Your task to perform on an android device: Open internet settings Image 0: 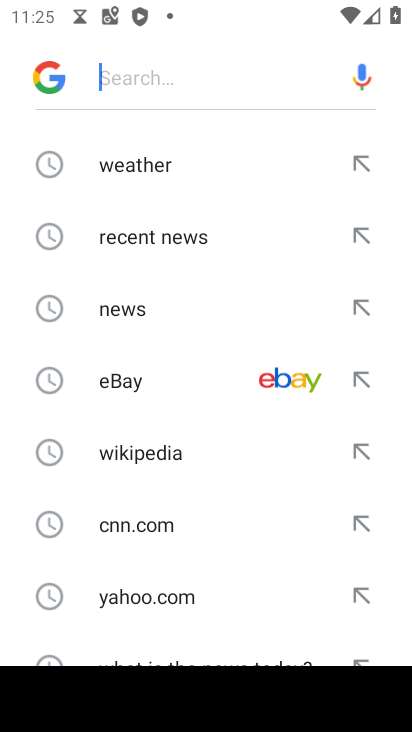
Step 0: press back button
Your task to perform on an android device: Open internet settings Image 1: 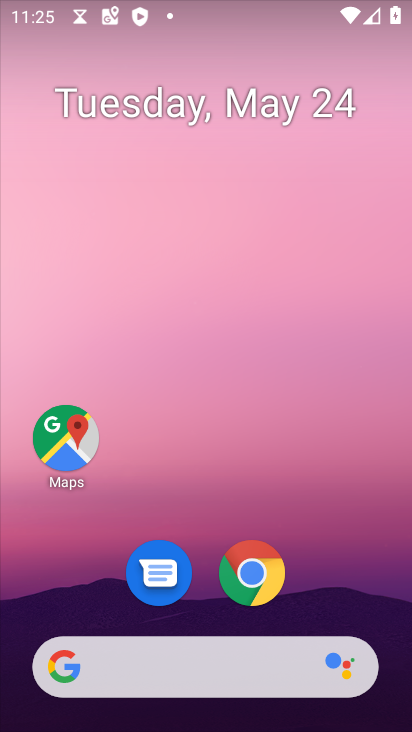
Step 1: drag from (78, 625) to (178, 190)
Your task to perform on an android device: Open internet settings Image 2: 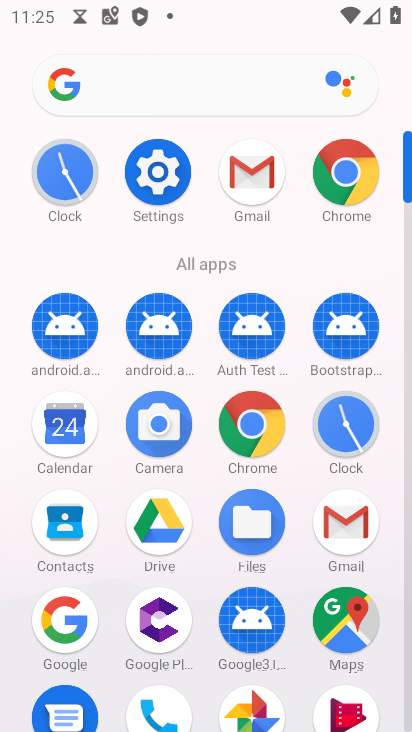
Step 2: drag from (121, 674) to (195, 375)
Your task to perform on an android device: Open internet settings Image 3: 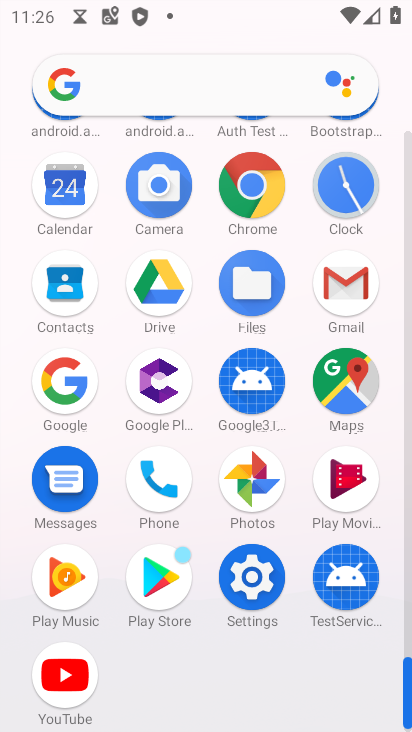
Step 3: click (231, 597)
Your task to perform on an android device: Open internet settings Image 4: 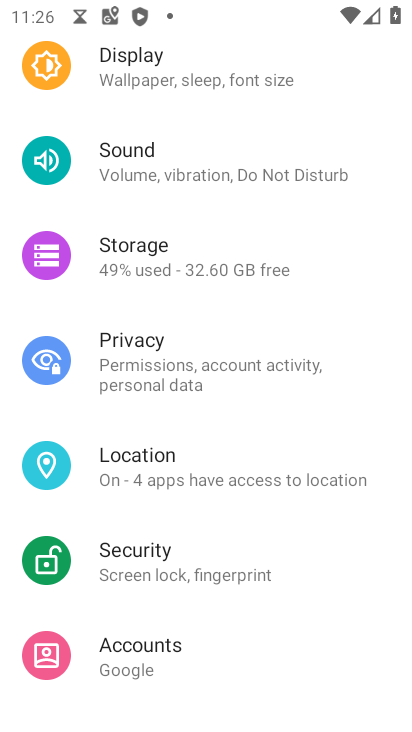
Step 4: drag from (195, 137) to (170, 629)
Your task to perform on an android device: Open internet settings Image 5: 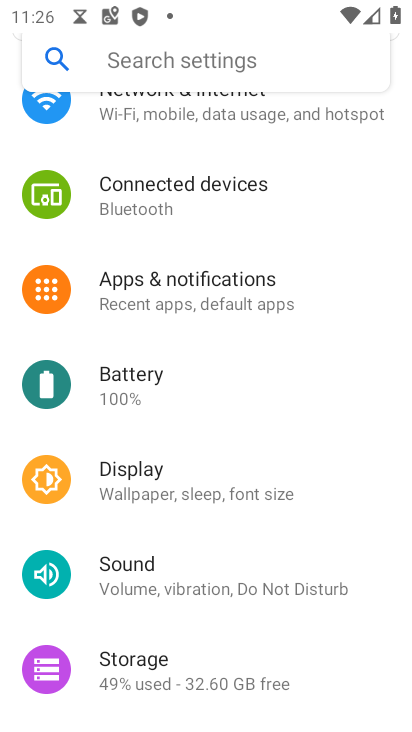
Step 5: click (193, 115)
Your task to perform on an android device: Open internet settings Image 6: 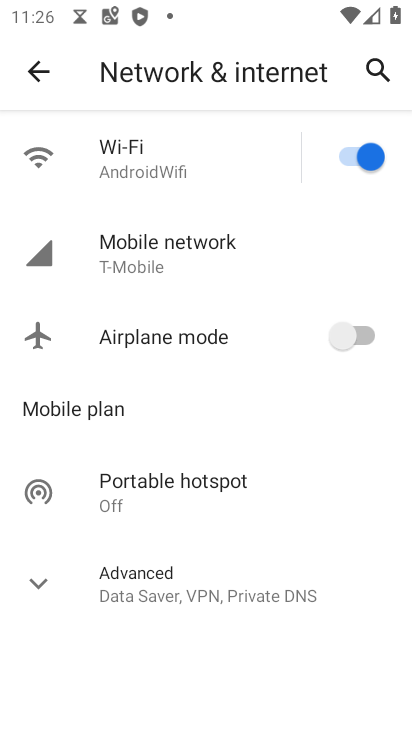
Step 6: click (187, 216)
Your task to perform on an android device: Open internet settings Image 7: 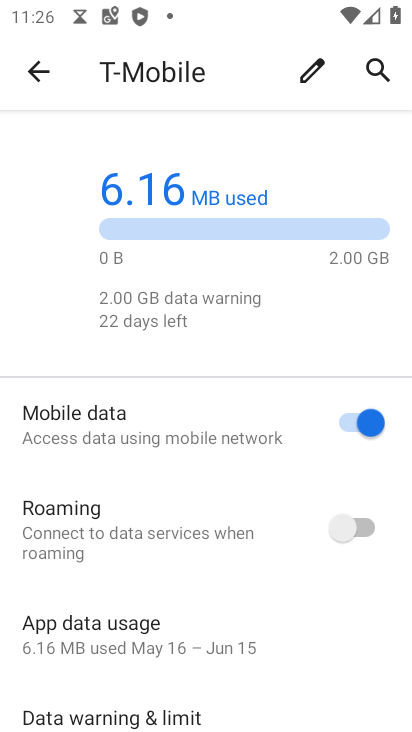
Step 7: task complete